Your task to perform on an android device: toggle wifi Image 0: 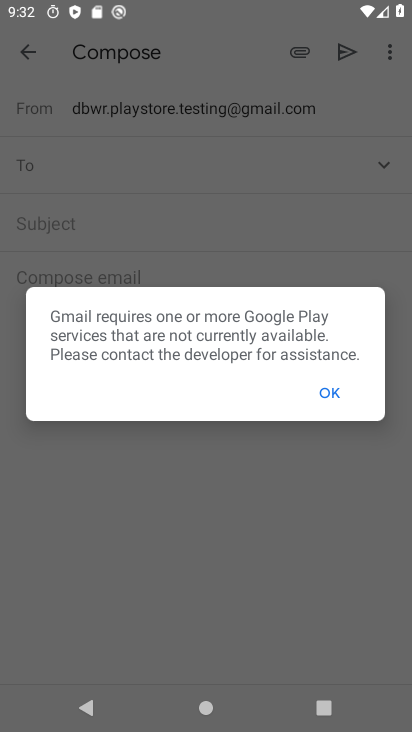
Step 0: click (330, 400)
Your task to perform on an android device: toggle wifi Image 1: 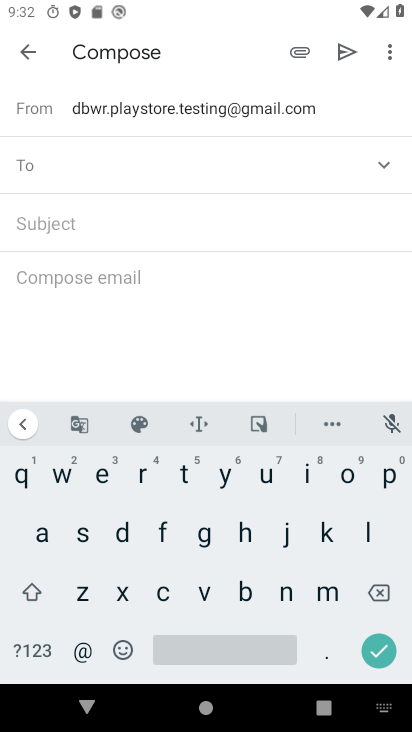
Step 1: press home button
Your task to perform on an android device: toggle wifi Image 2: 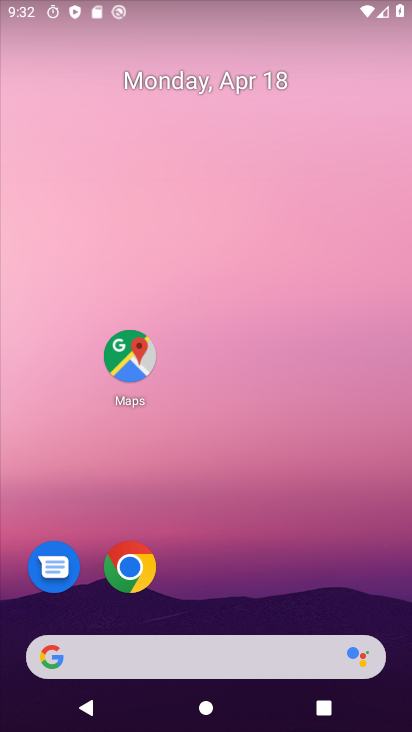
Step 2: drag from (292, 613) to (266, 305)
Your task to perform on an android device: toggle wifi Image 3: 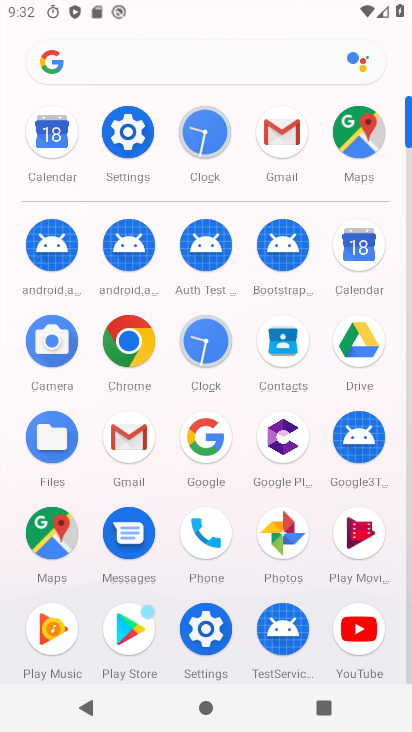
Step 3: click (110, 144)
Your task to perform on an android device: toggle wifi Image 4: 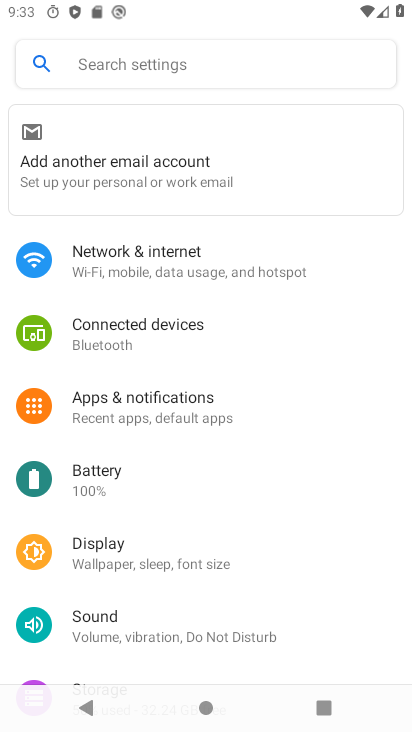
Step 4: click (142, 240)
Your task to perform on an android device: toggle wifi Image 5: 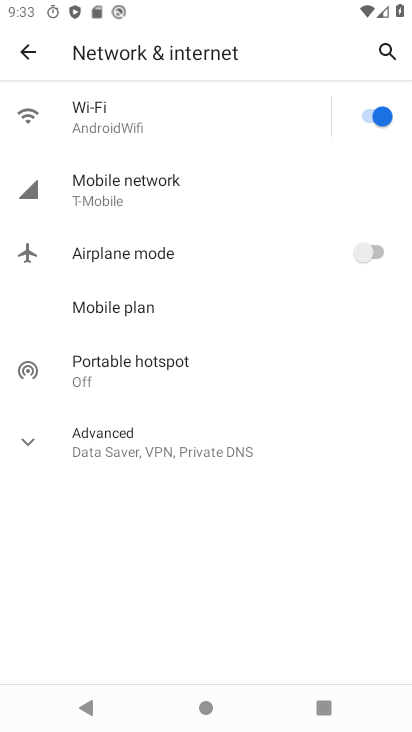
Step 5: click (135, 113)
Your task to perform on an android device: toggle wifi Image 6: 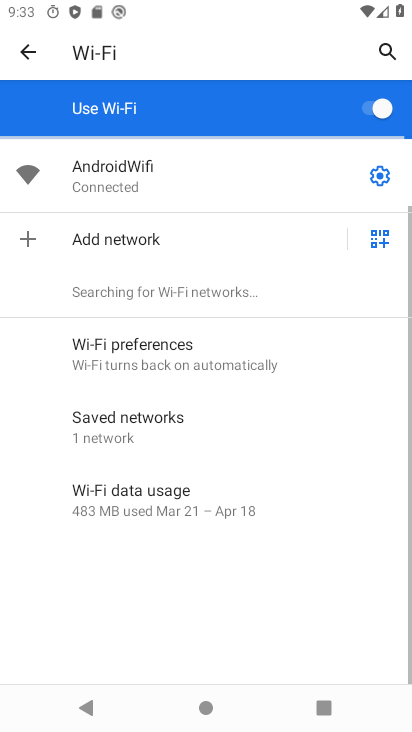
Step 6: task complete